Your task to perform on an android device: Go to sound settings Image 0: 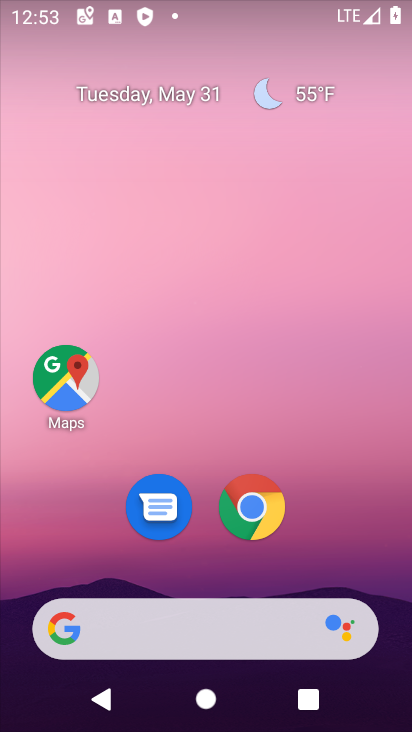
Step 0: drag from (372, 603) to (234, 1)
Your task to perform on an android device: Go to sound settings Image 1: 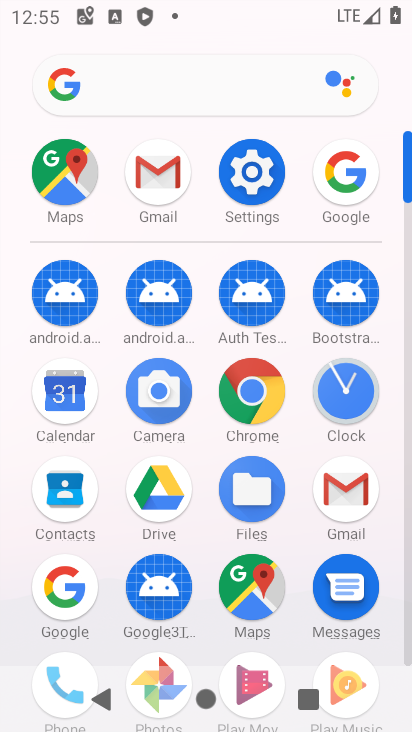
Step 1: click (240, 148)
Your task to perform on an android device: Go to sound settings Image 2: 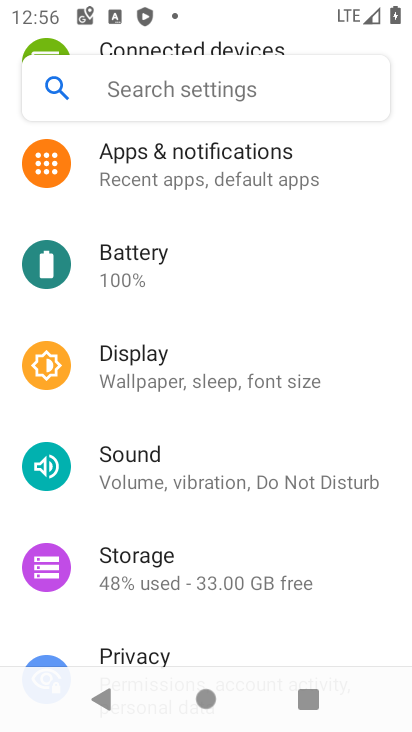
Step 2: click (205, 476)
Your task to perform on an android device: Go to sound settings Image 3: 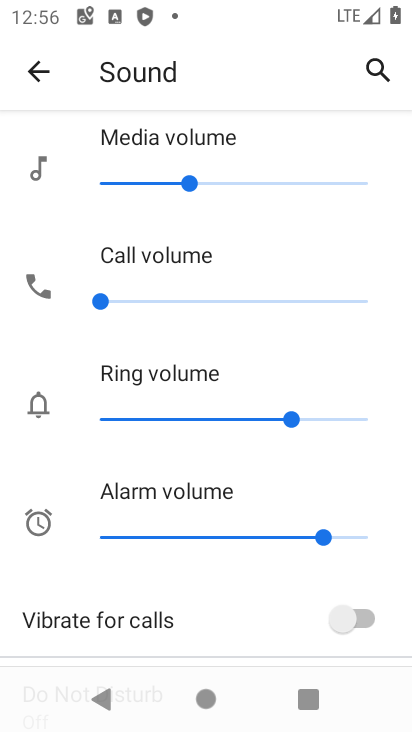
Step 3: task complete